Your task to perform on an android device: Open Wikipedia Image 0: 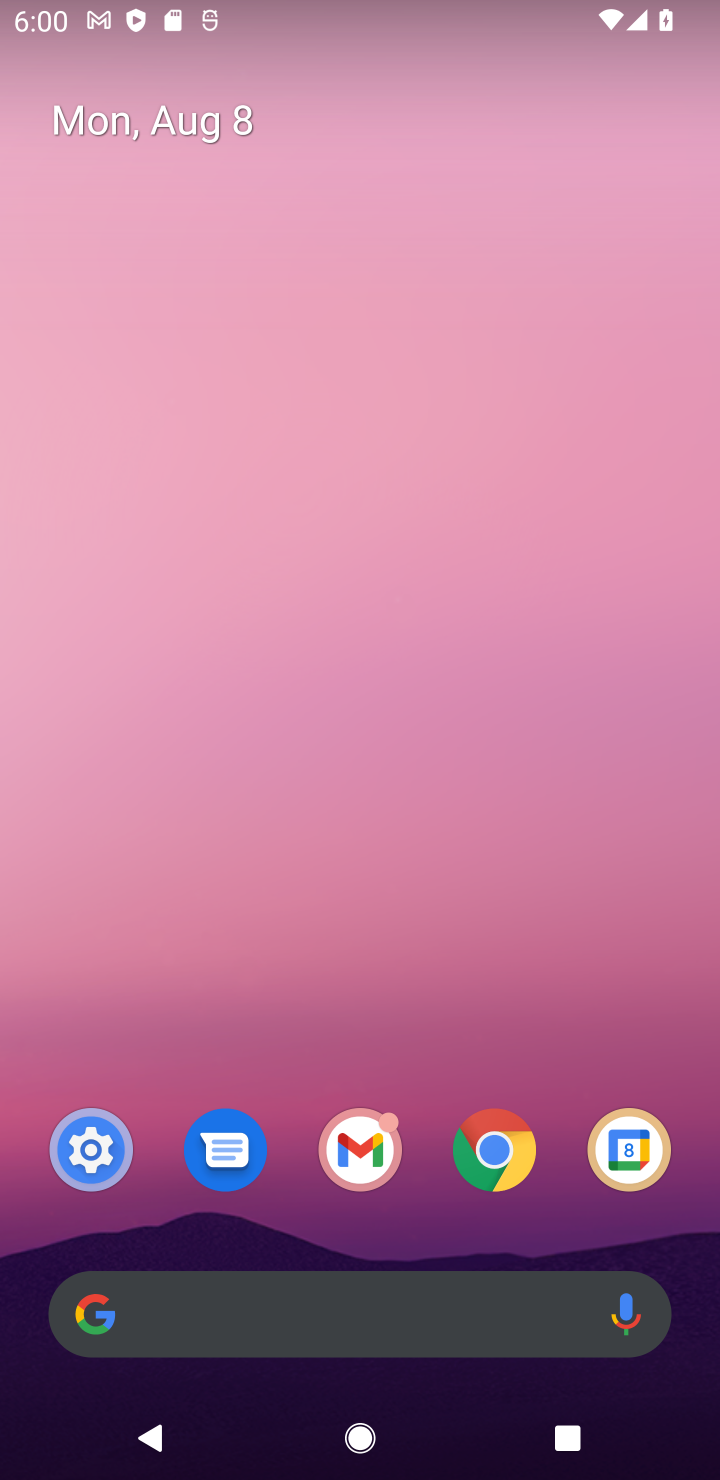
Step 0: click (499, 1133)
Your task to perform on an android device: Open Wikipedia Image 1: 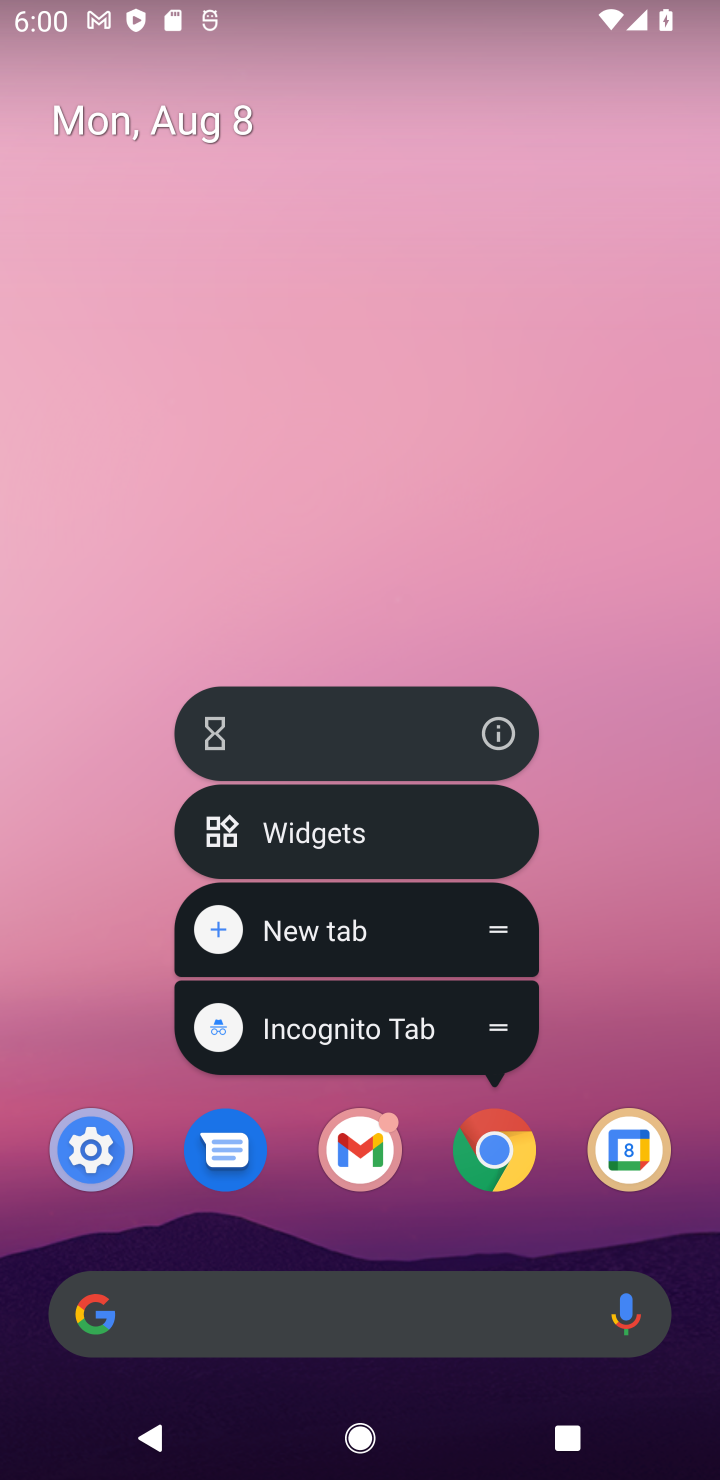
Step 1: click (631, 639)
Your task to perform on an android device: Open Wikipedia Image 2: 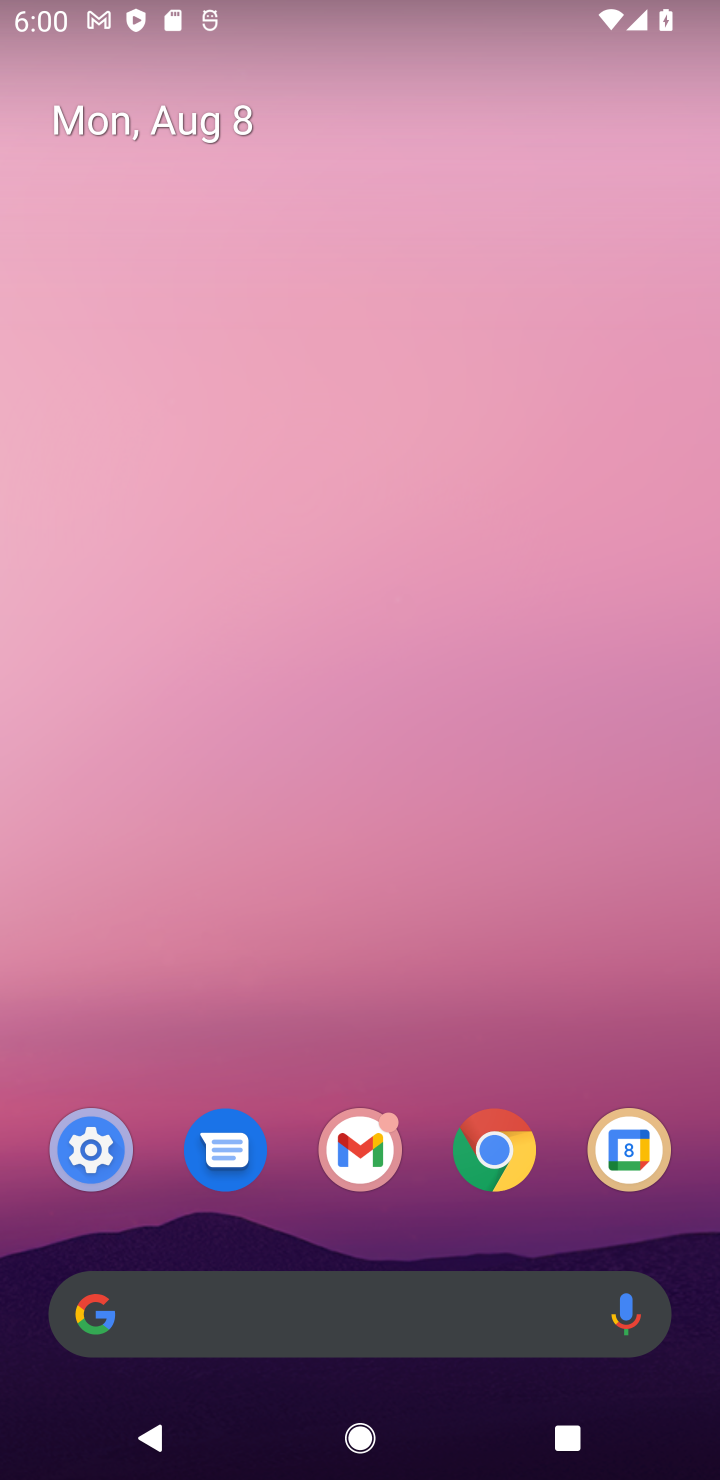
Step 2: click (502, 1162)
Your task to perform on an android device: Open Wikipedia Image 3: 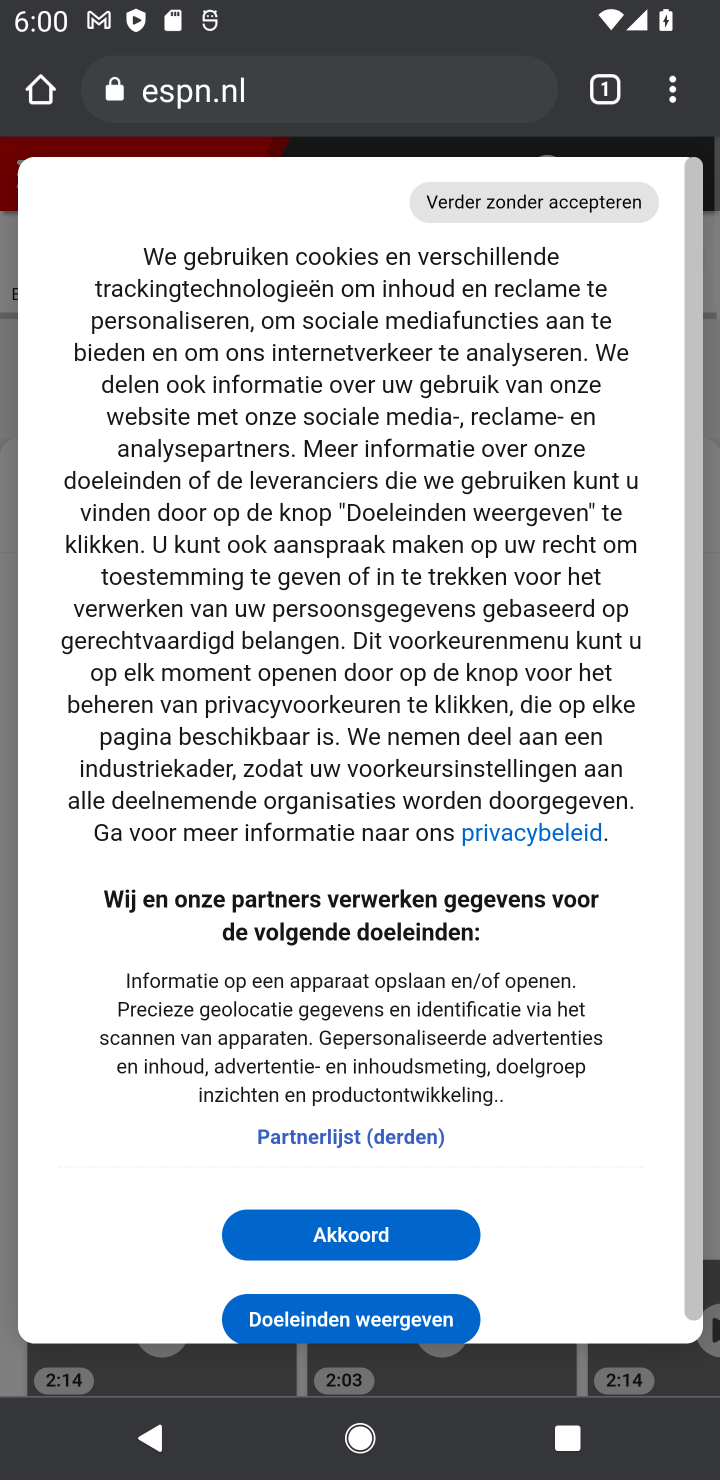
Step 3: click (449, 92)
Your task to perform on an android device: Open Wikipedia Image 4: 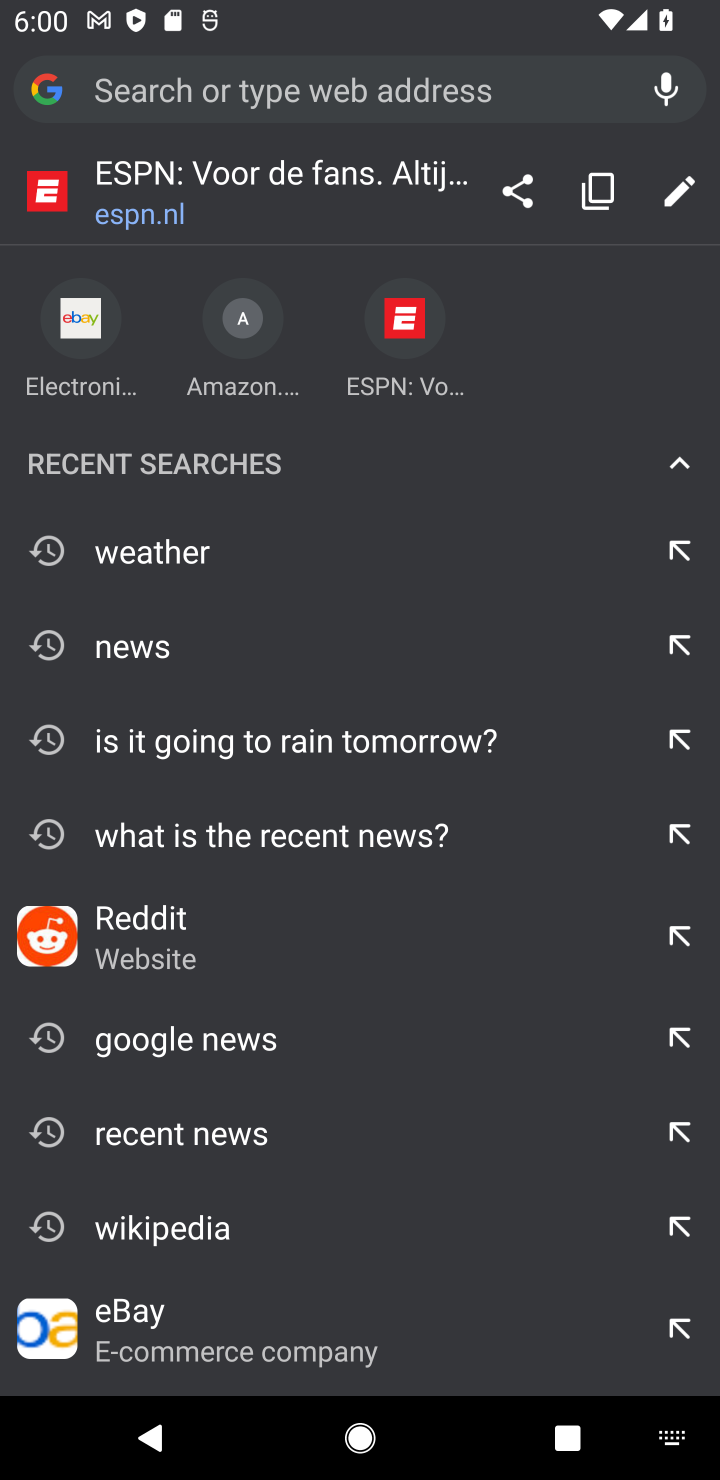
Step 4: type "wikipedia"
Your task to perform on an android device: Open Wikipedia Image 5: 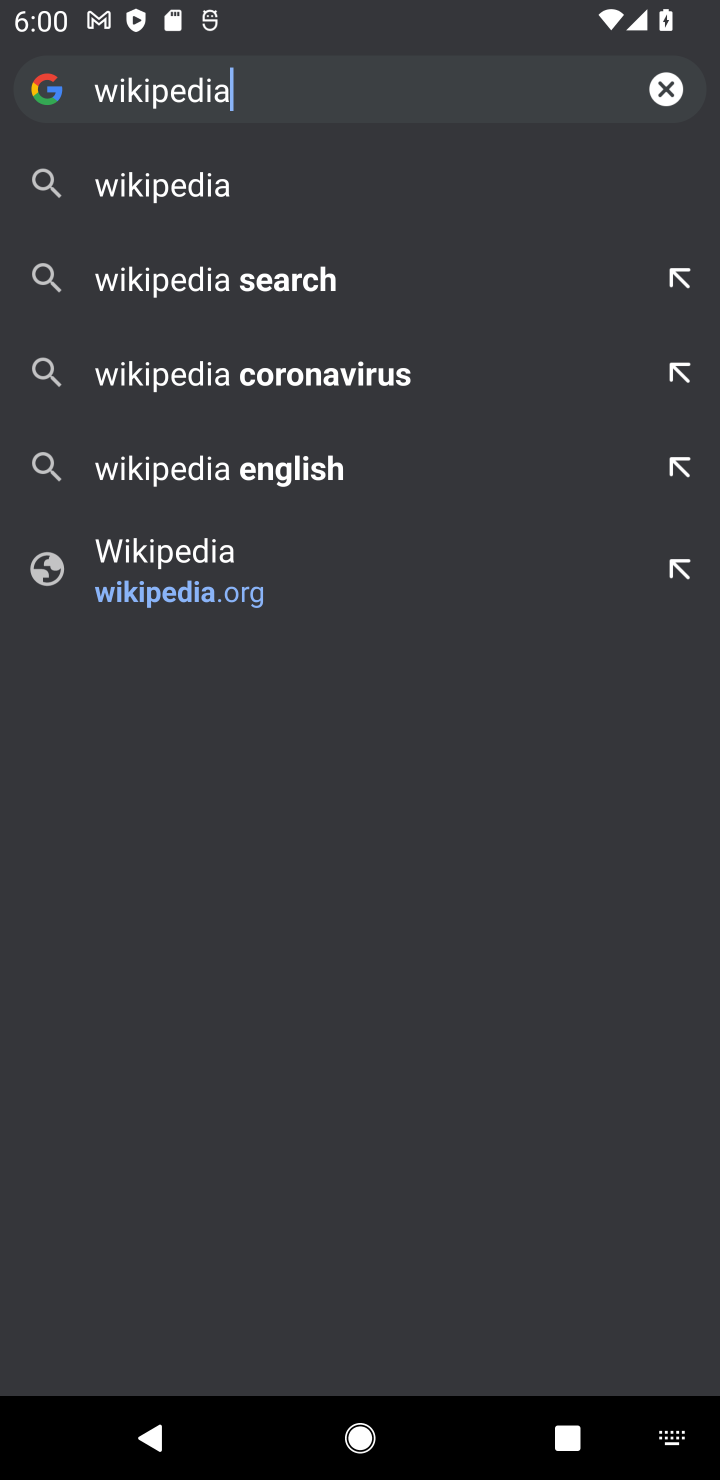
Step 5: click (220, 195)
Your task to perform on an android device: Open Wikipedia Image 6: 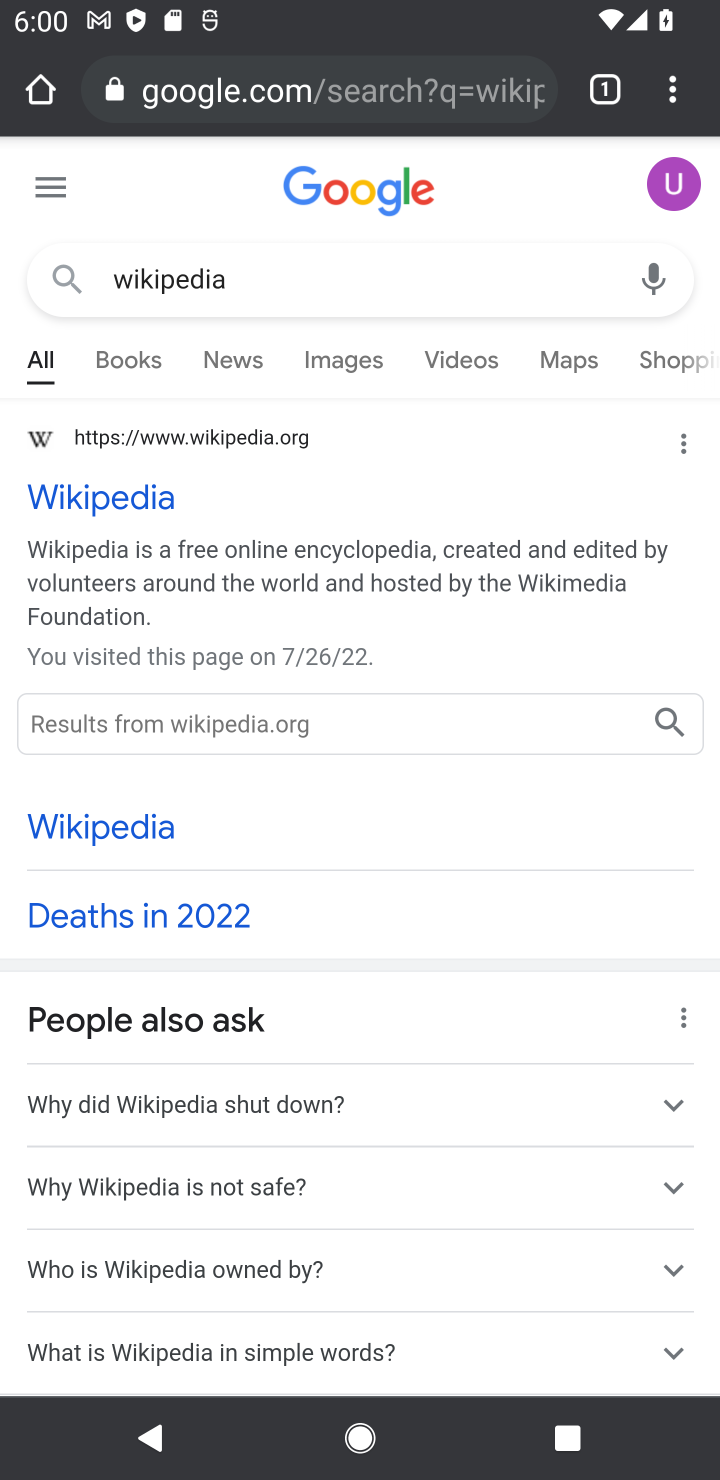
Step 6: click (141, 525)
Your task to perform on an android device: Open Wikipedia Image 7: 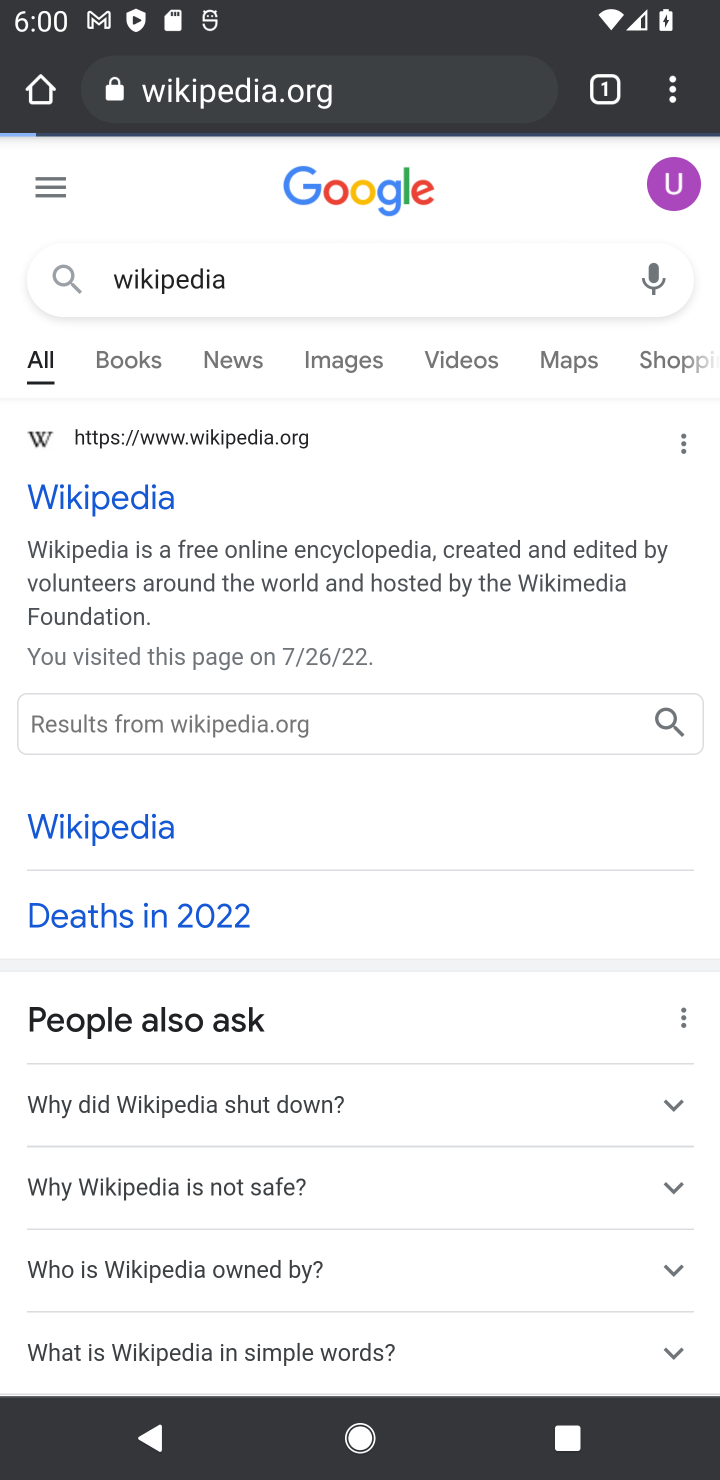
Step 7: task complete